Your task to perform on an android device: Show me recent news Image 0: 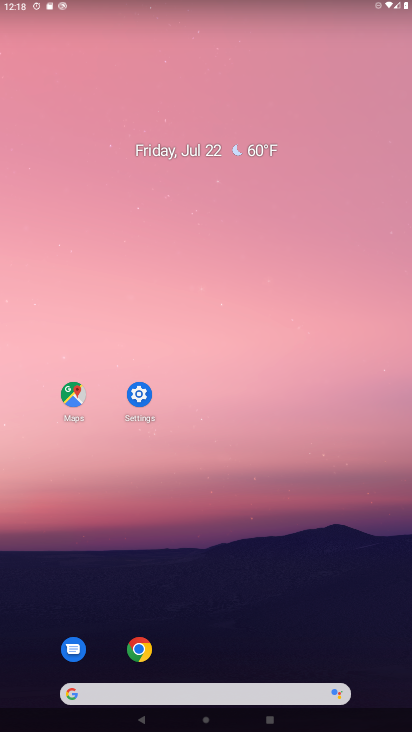
Step 0: drag from (3, 209) to (372, 166)
Your task to perform on an android device: Show me recent news Image 1: 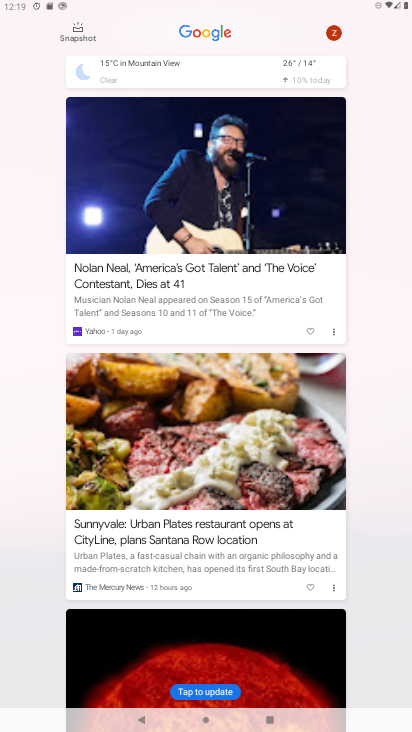
Step 1: task complete